Your task to perform on an android device: Show me popular games on the Play Store Image 0: 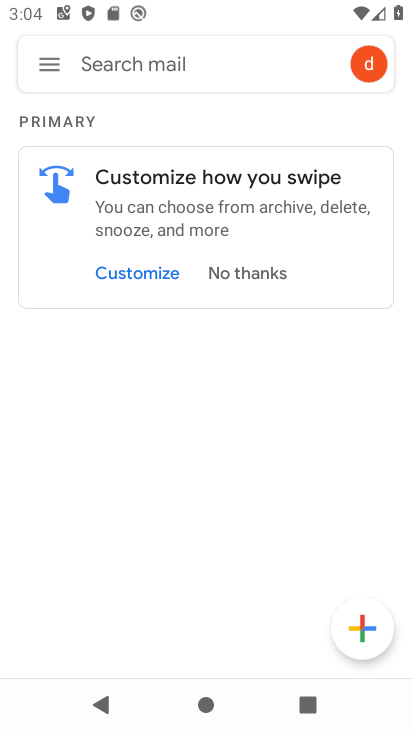
Step 0: press home button
Your task to perform on an android device: Show me popular games on the Play Store Image 1: 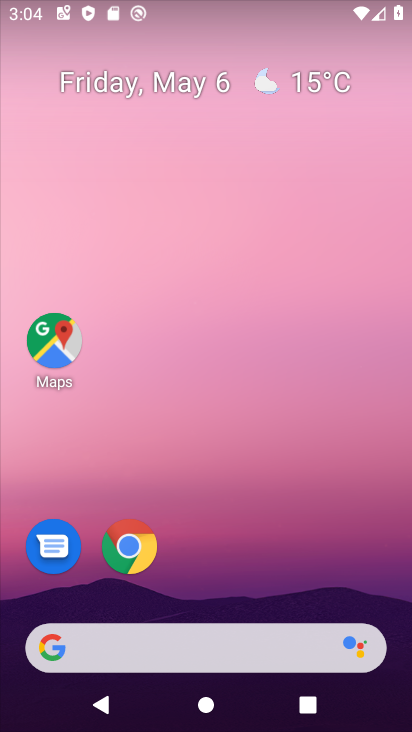
Step 1: drag from (268, 587) to (162, 176)
Your task to perform on an android device: Show me popular games on the Play Store Image 2: 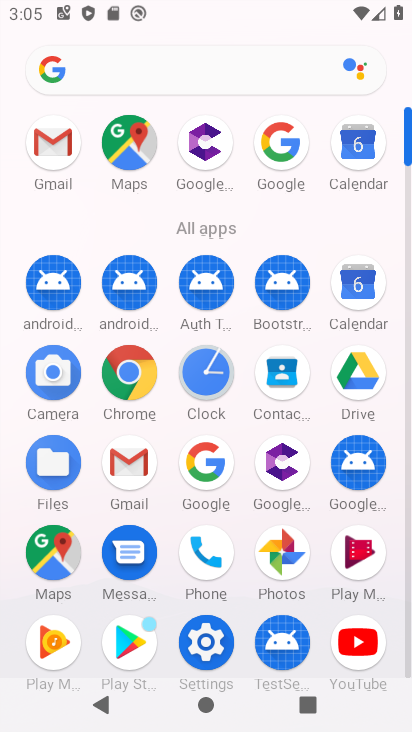
Step 2: click (137, 637)
Your task to perform on an android device: Show me popular games on the Play Store Image 3: 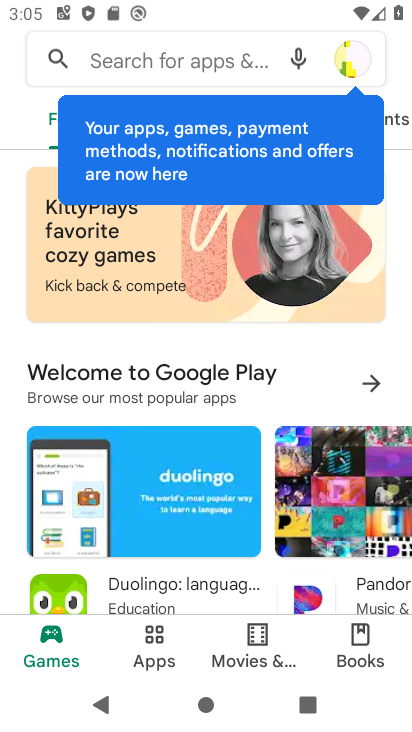
Step 3: click (225, 381)
Your task to perform on an android device: Show me popular games on the Play Store Image 4: 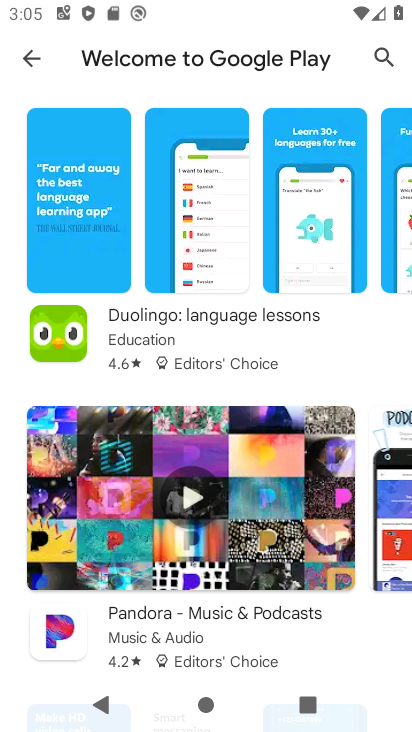
Step 4: task complete